Your task to perform on an android device: change the clock style Image 0: 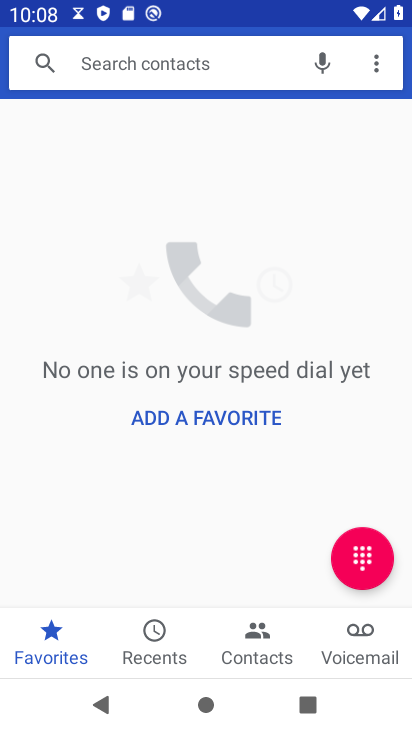
Step 0: press home button
Your task to perform on an android device: change the clock style Image 1: 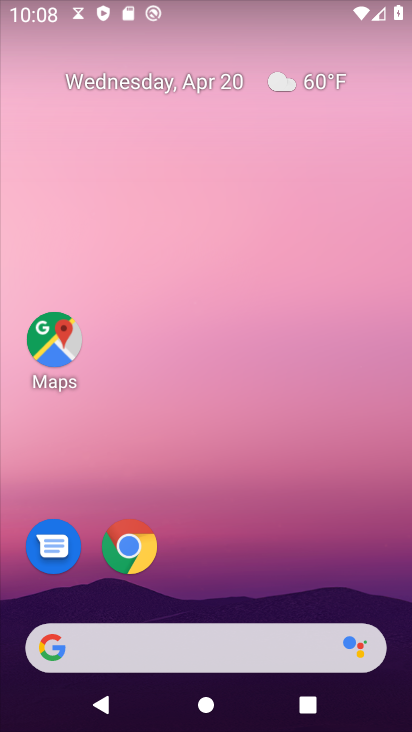
Step 1: drag from (240, 562) to (215, 13)
Your task to perform on an android device: change the clock style Image 2: 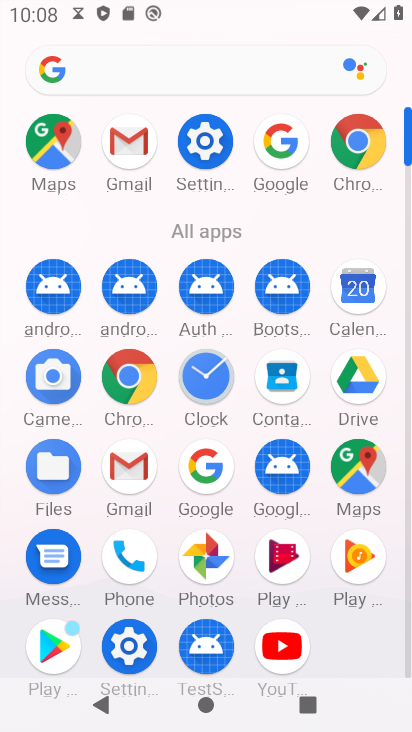
Step 2: click (205, 382)
Your task to perform on an android device: change the clock style Image 3: 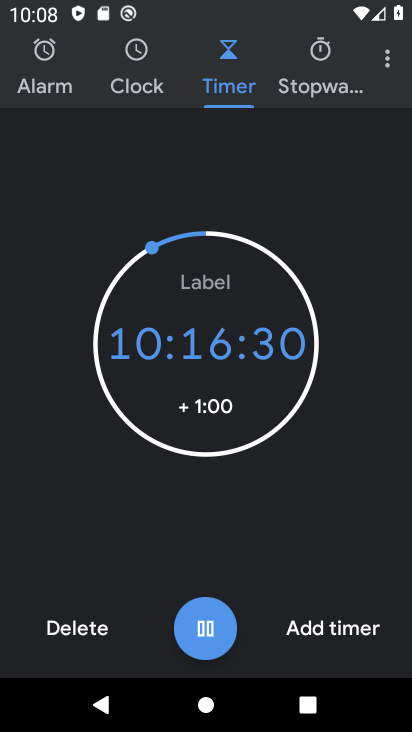
Step 3: click (384, 55)
Your task to perform on an android device: change the clock style Image 4: 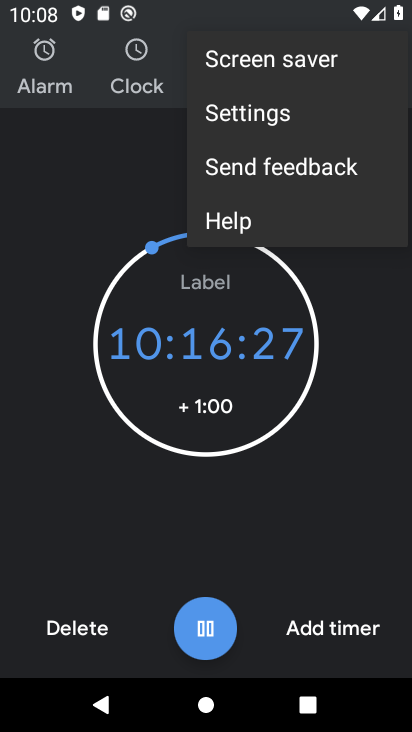
Step 4: click (286, 117)
Your task to perform on an android device: change the clock style Image 5: 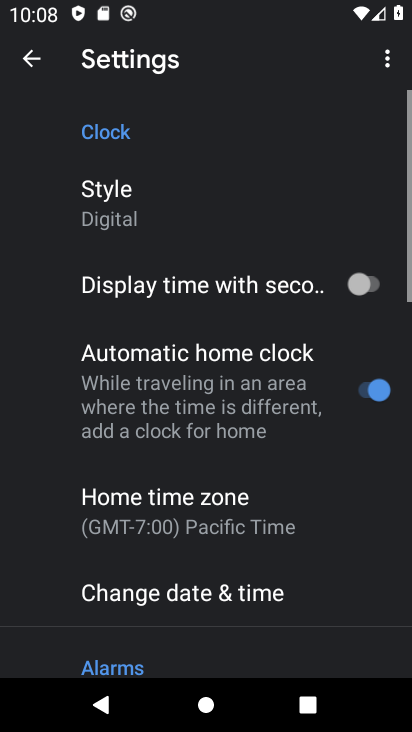
Step 5: click (135, 198)
Your task to perform on an android device: change the clock style Image 6: 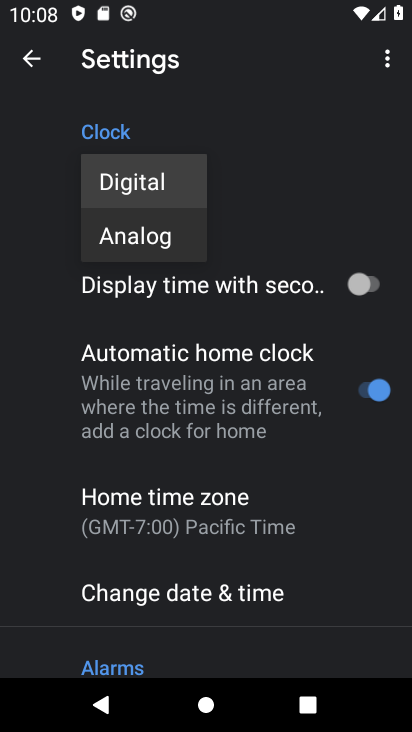
Step 6: click (184, 237)
Your task to perform on an android device: change the clock style Image 7: 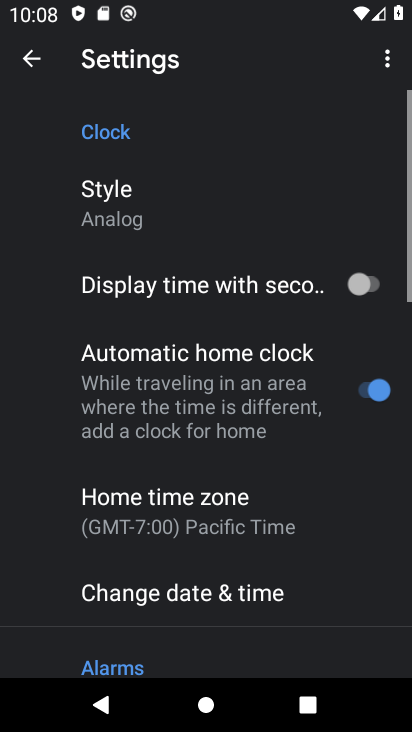
Step 7: task complete